Your task to perform on an android device: Toggle the flashlight Image 0: 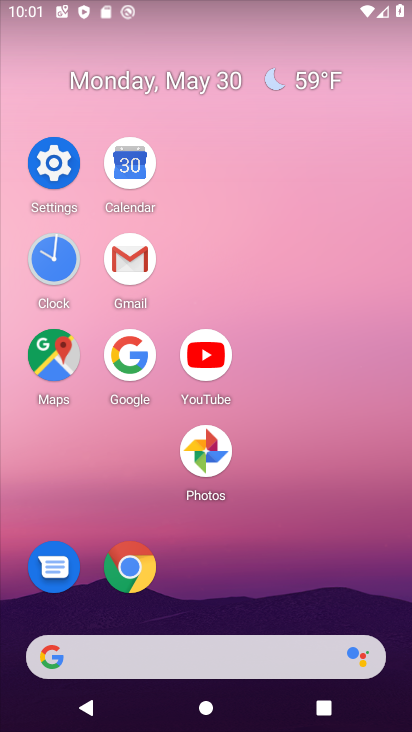
Step 0: drag from (286, 30) to (371, 491)
Your task to perform on an android device: Toggle the flashlight Image 1: 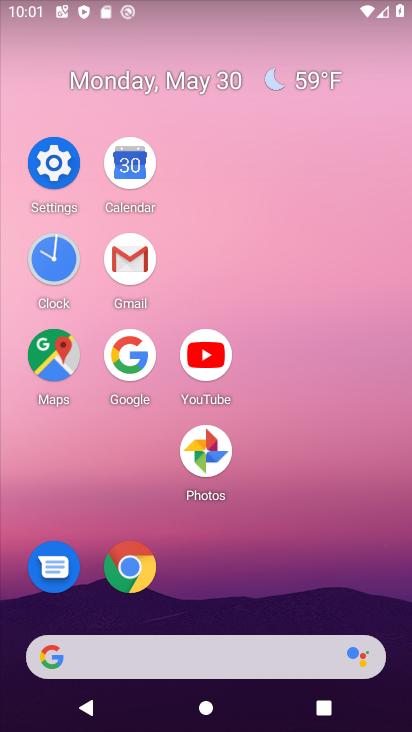
Step 1: task complete